Your task to perform on an android device: Open Youtube and go to "Your channel" Image 0: 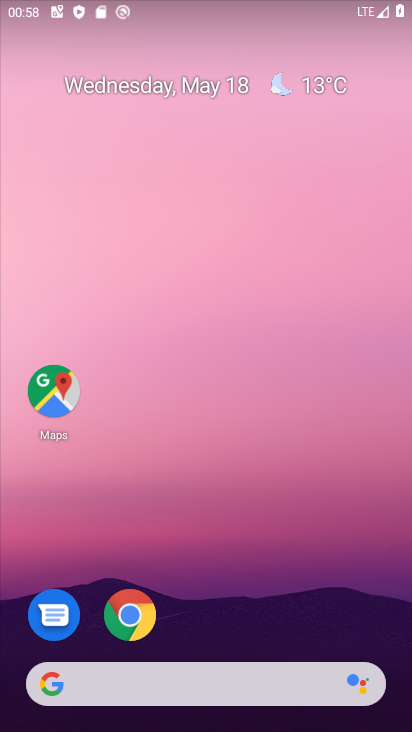
Step 0: drag from (206, 681) to (391, 187)
Your task to perform on an android device: Open Youtube and go to "Your channel" Image 1: 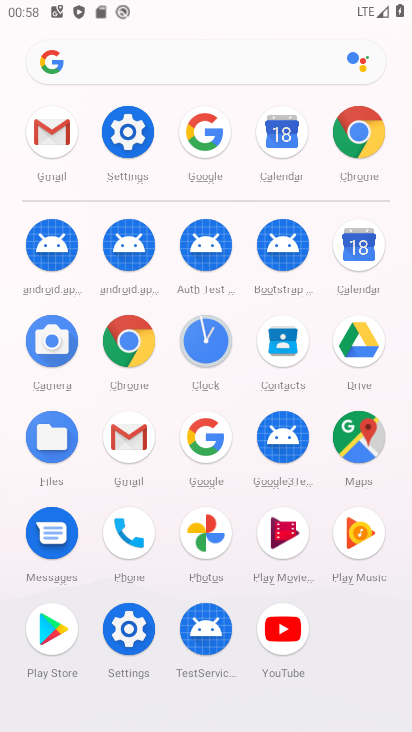
Step 1: click (292, 636)
Your task to perform on an android device: Open Youtube and go to "Your channel" Image 2: 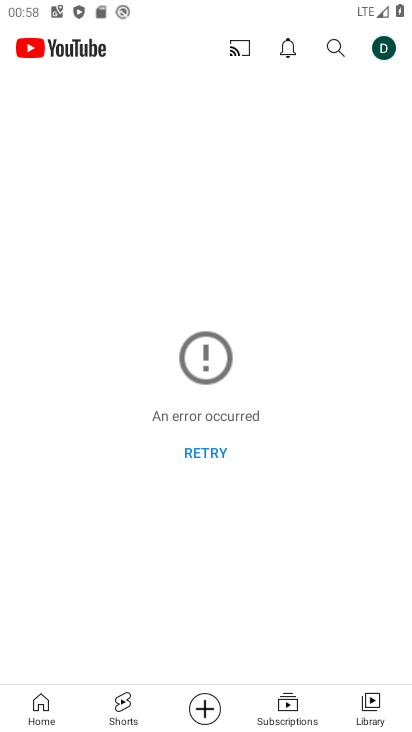
Step 2: click (216, 449)
Your task to perform on an android device: Open Youtube and go to "Your channel" Image 3: 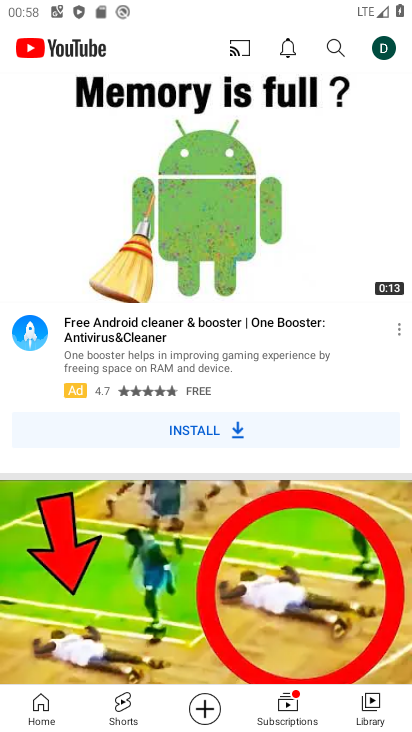
Step 3: click (376, 52)
Your task to perform on an android device: Open Youtube and go to "Your channel" Image 4: 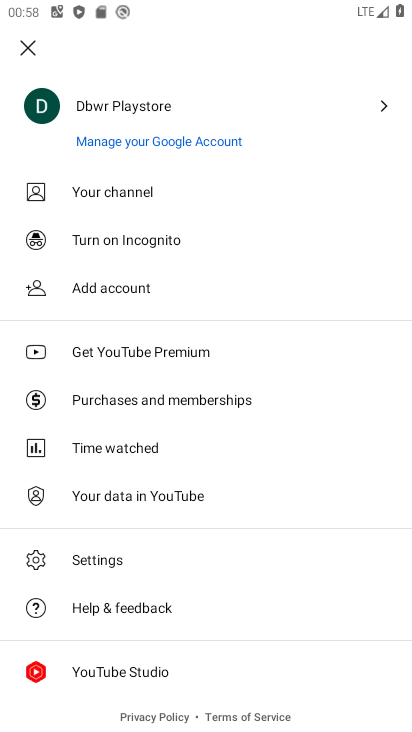
Step 4: click (136, 187)
Your task to perform on an android device: Open Youtube and go to "Your channel" Image 5: 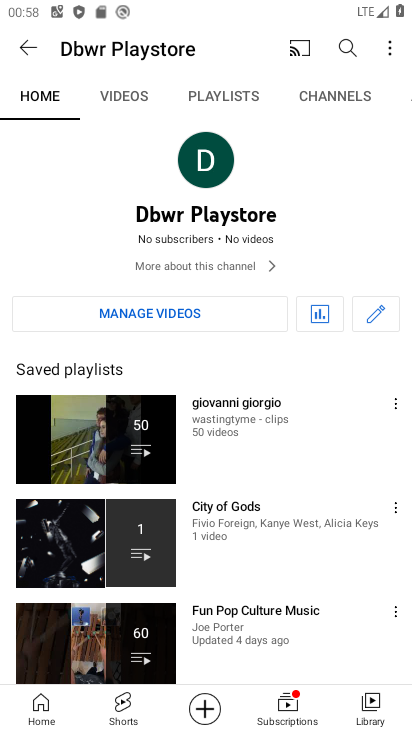
Step 5: task complete